Your task to perform on an android device: toggle priority inbox in the gmail app Image 0: 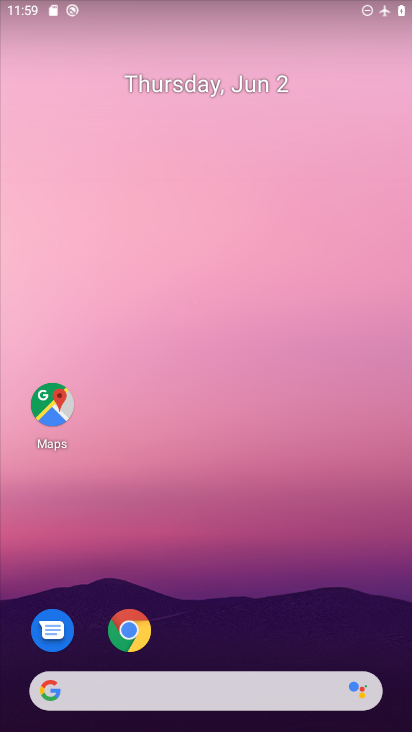
Step 0: drag from (226, 639) to (185, 299)
Your task to perform on an android device: toggle priority inbox in the gmail app Image 1: 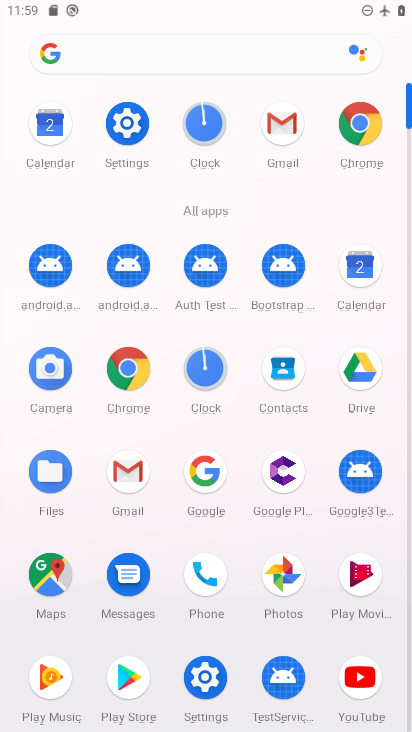
Step 1: click (281, 125)
Your task to perform on an android device: toggle priority inbox in the gmail app Image 2: 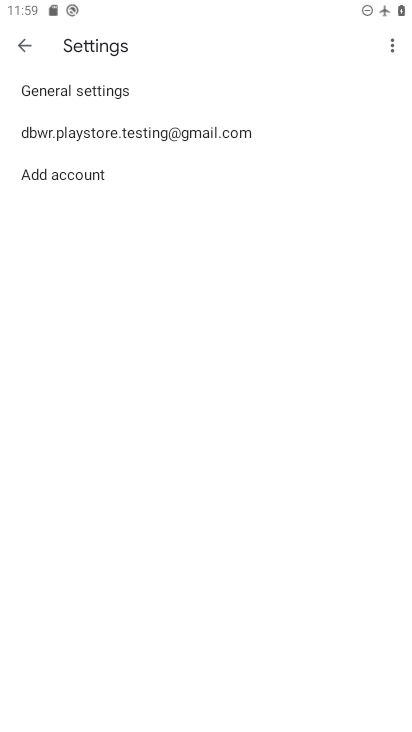
Step 2: click (259, 134)
Your task to perform on an android device: toggle priority inbox in the gmail app Image 3: 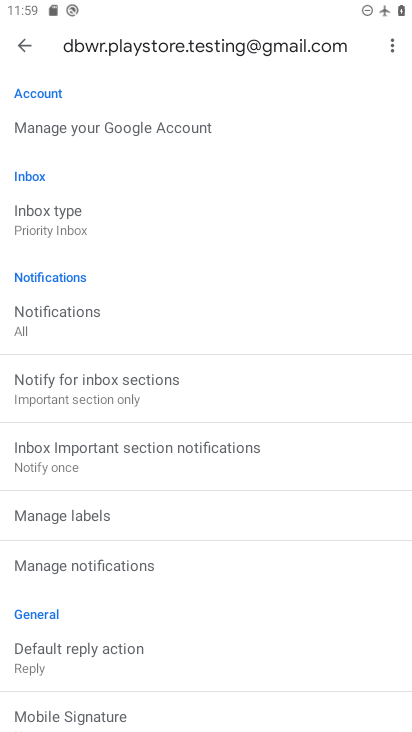
Step 3: click (216, 226)
Your task to perform on an android device: toggle priority inbox in the gmail app Image 4: 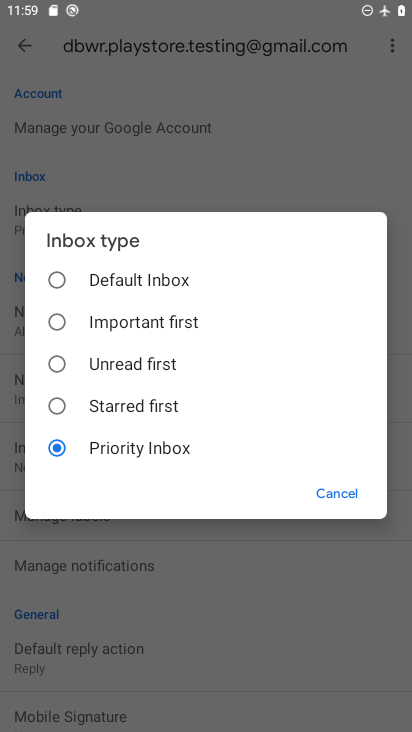
Step 4: click (200, 276)
Your task to perform on an android device: toggle priority inbox in the gmail app Image 5: 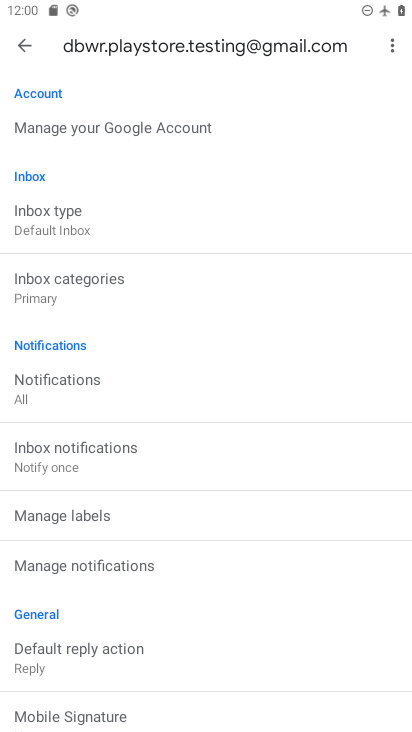
Step 5: task complete